Your task to perform on an android device: add a contact Image 0: 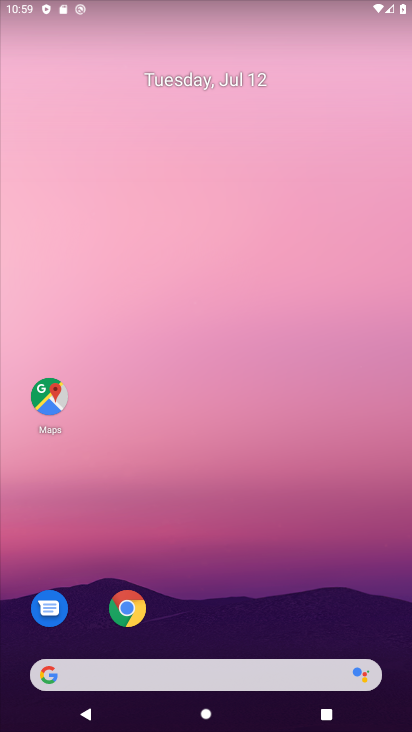
Step 0: drag from (186, 644) to (259, 55)
Your task to perform on an android device: add a contact Image 1: 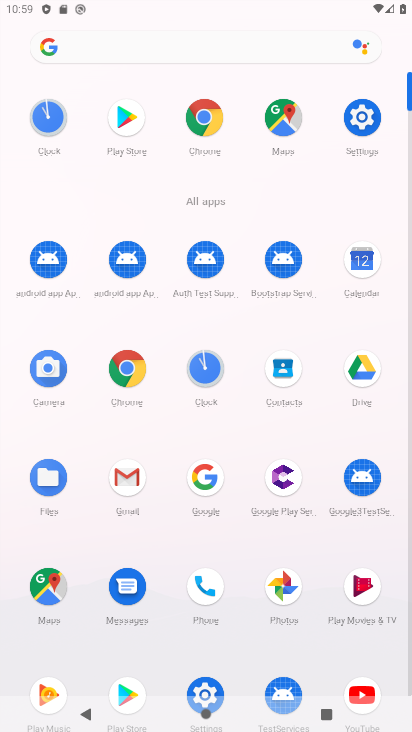
Step 1: click (279, 369)
Your task to perform on an android device: add a contact Image 2: 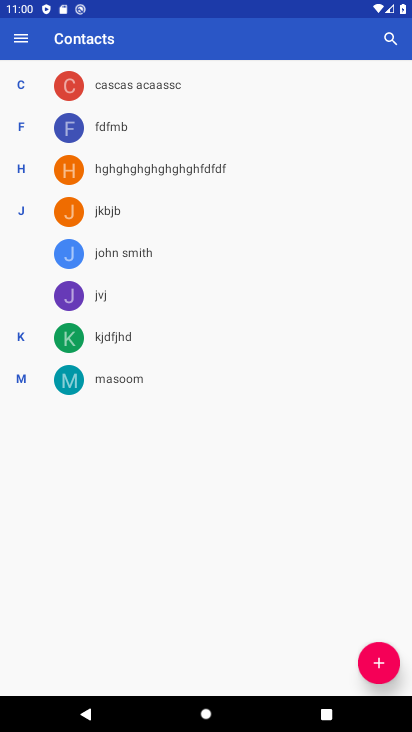
Step 2: click (373, 665)
Your task to perform on an android device: add a contact Image 3: 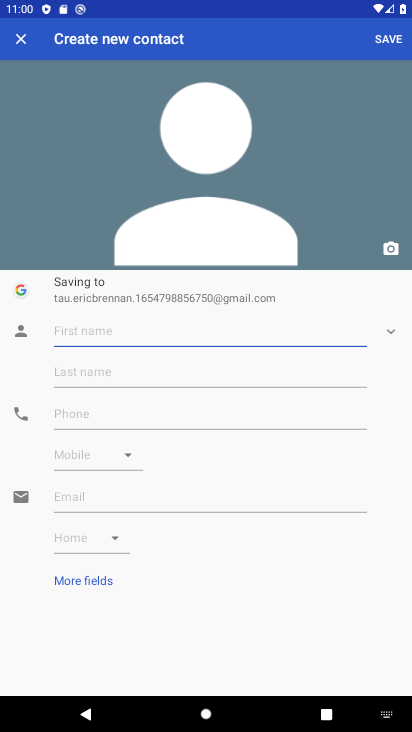
Step 3: type "poijhgv"
Your task to perform on an android device: add a contact Image 4: 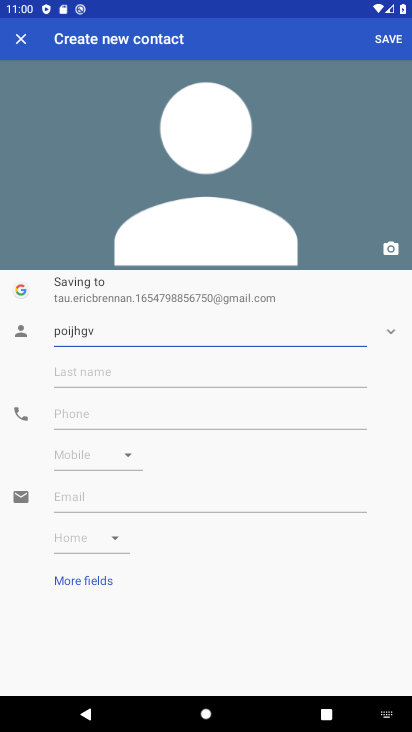
Step 4: click (75, 421)
Your task to perform on an android device: add a contact Image 5: 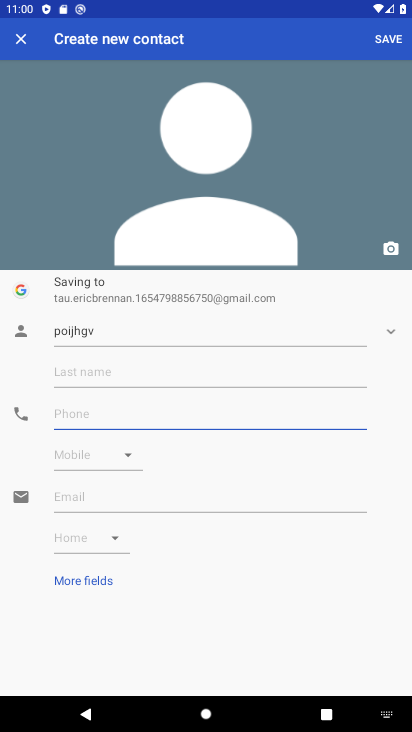
Step 5: type "23456789"
Your task to perform on an android device: add a contact Image 6: 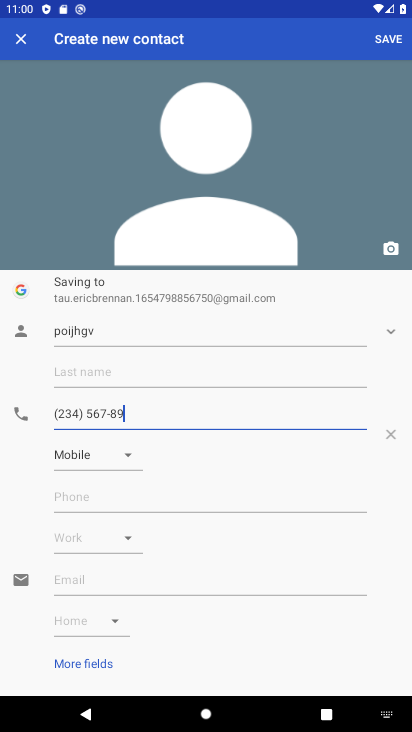
Step 6: click (388, 38)
Your task to perform on an android device: add a contact Image 7: 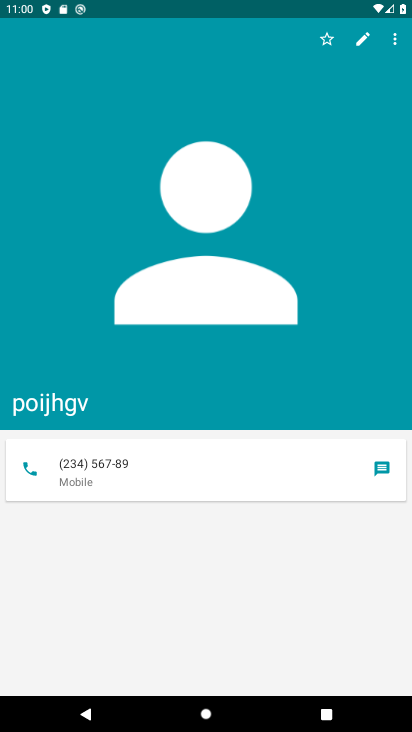
Step 7: task complete